Your task to perform on an android device: Go to internet settings Image 0: 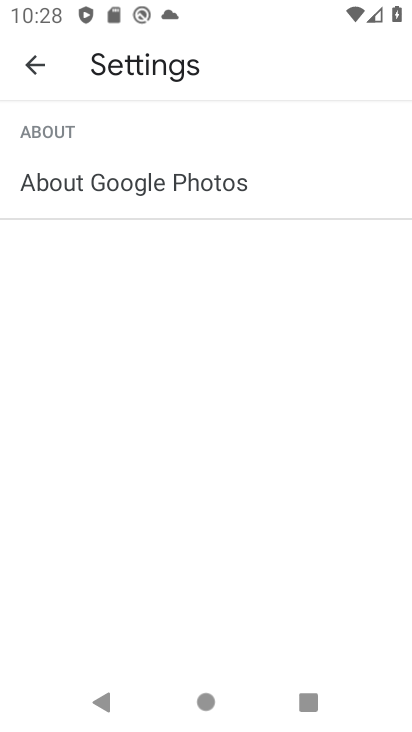
Step 0: press home button
Your task to perform on an android device: Go to internet settings Image 1: 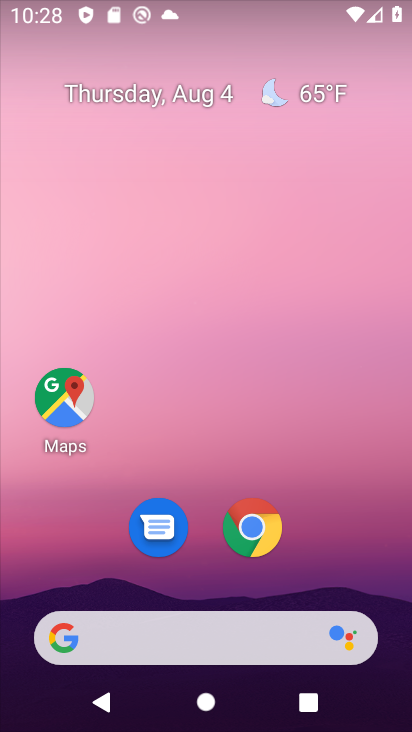
Step 1: drag from (151, 629) to (271, 165)
Your task to perform on an android device: Go to internet settings Image 2: 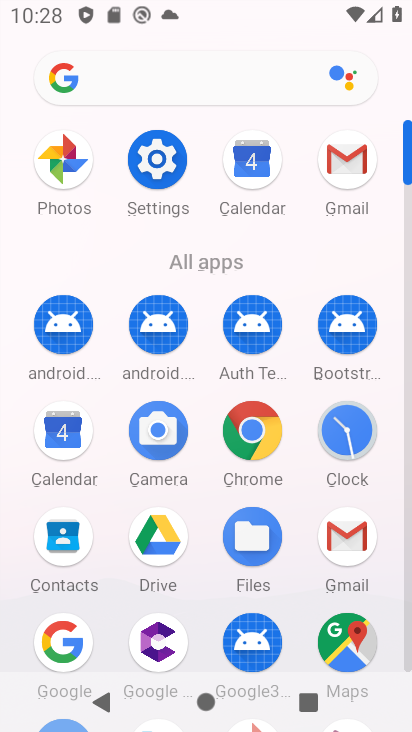
Step 2: click (169, 149)
Your task to perform on an android device: Go to internet settings Image 3: 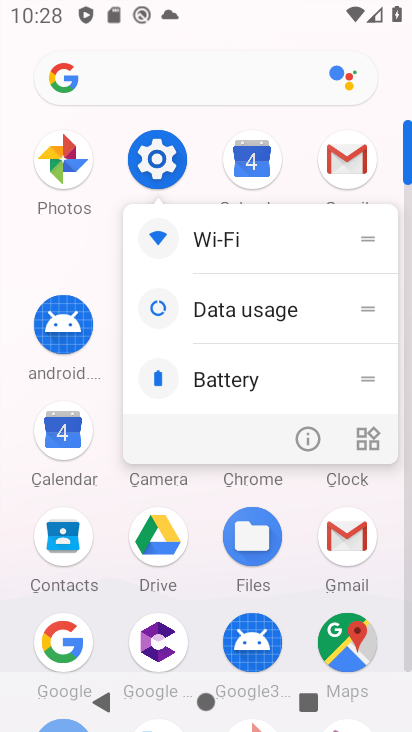
Step 3: click (164, 164)
Your task to perform on an android device: Go to internet settings Image 4: 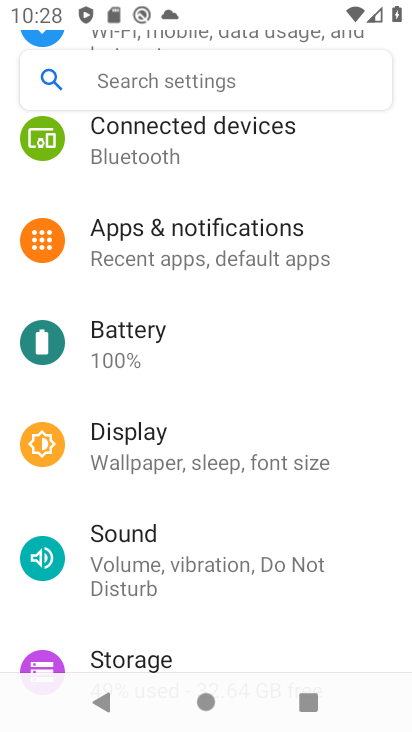
Step 4: drag from (203, 407) to (226, 730)
Your task to perform on an android device: Go to internet settings Image 5: 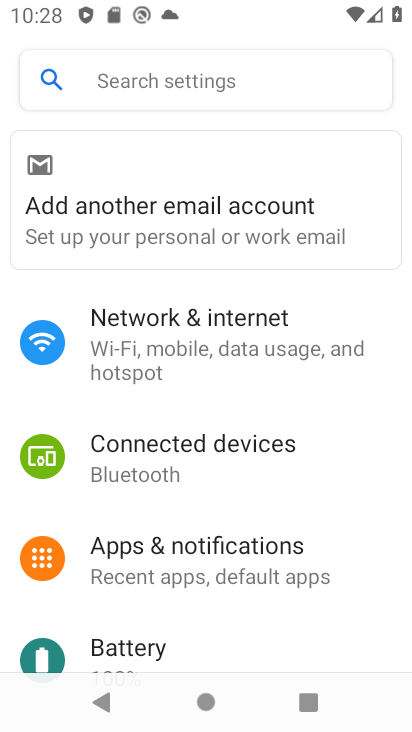
Step 5: click (249, 346)
Your task to perform on an android device: Go to internet settings Image 6: 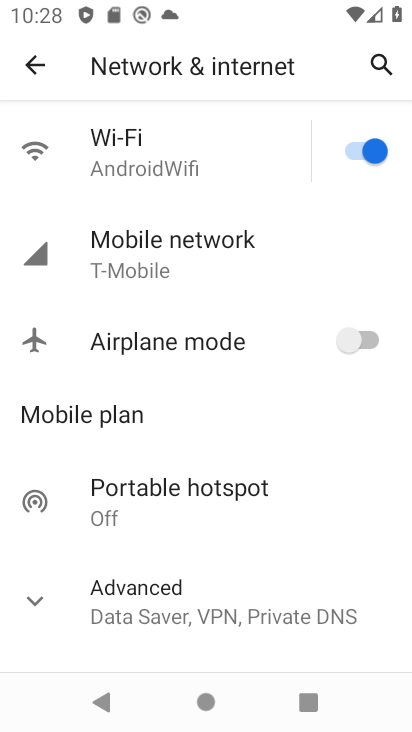
Step 6: task complete